Your task to perform on an android device: see tabs open on other devices in the chrome app Image 0: 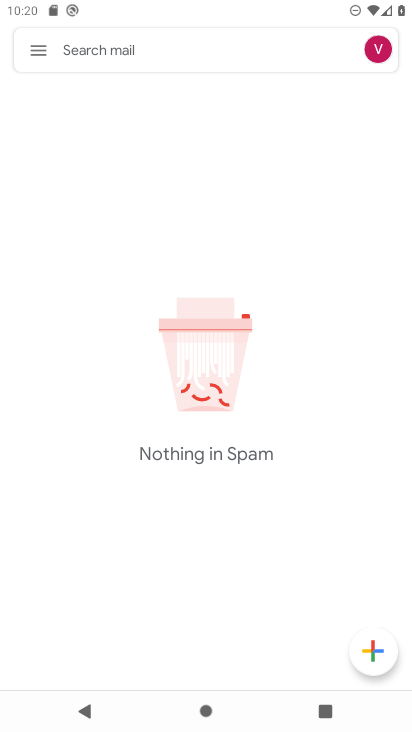
Step 0: press home button
Your task to perform on an android device: see tabs open on other devices in the chrome app Image 1: 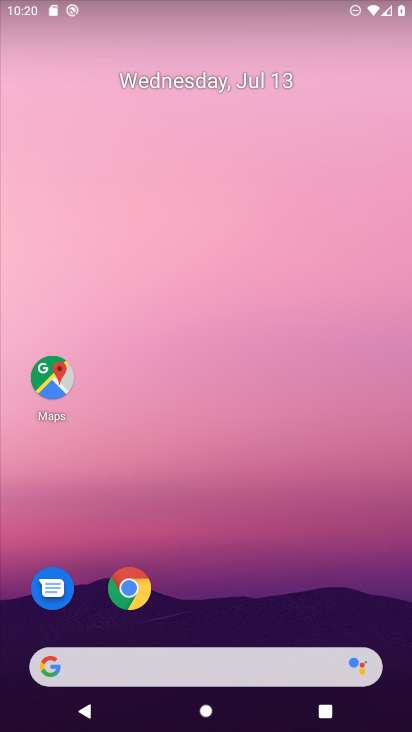
Step 1: drag from (214, 650) to (200, 100)
Your task to perform on an android device: see tabs open on other devices in the chrome app Image 2: 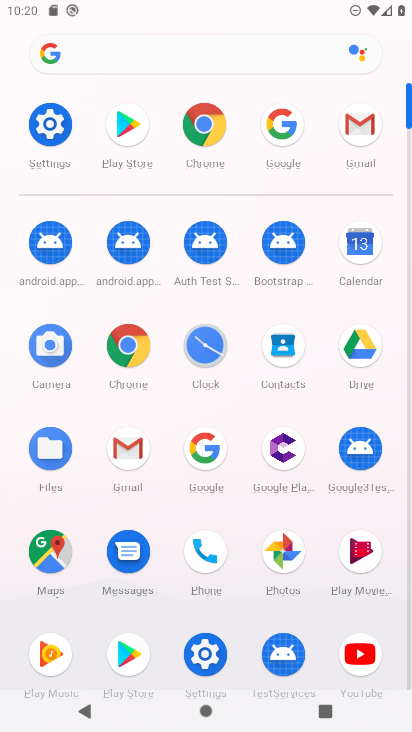
Step 2: click (138, 343)
Your task to perform on an android device: see tabs open on other devices in the chrome app Image 3: 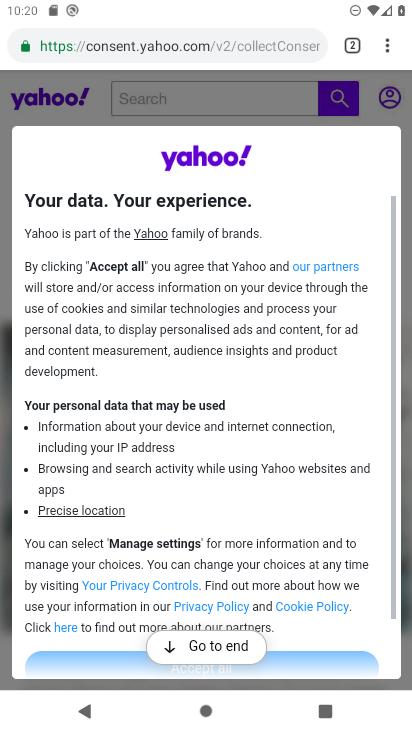
Step 3: click (358, 37)
Your task to perform on an android device: see tabs open on other devices in the chrome app Image 4: 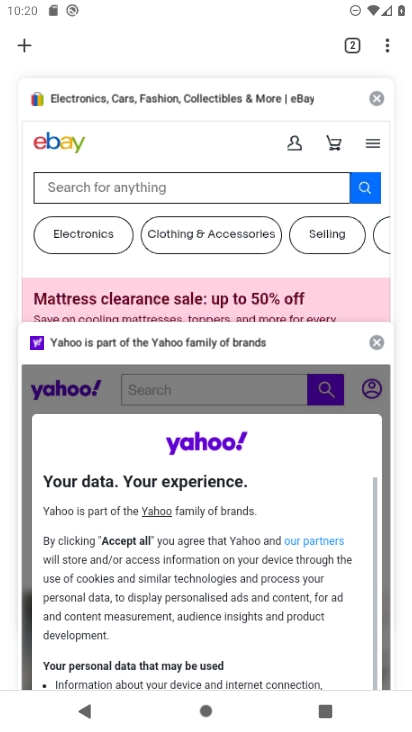
Step 4: task complete